Your task to perform on an android device: change notification settings in the gmail app Image 0: 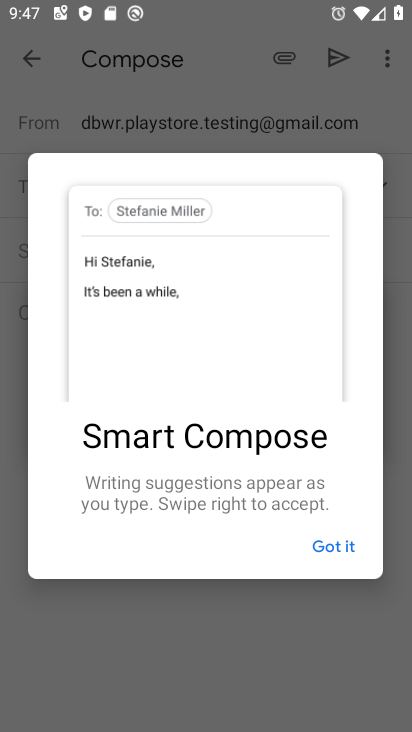
Step 0: click (345, 536)
Your task to perform on an android device: change notification settings in the gmail app Image 1: 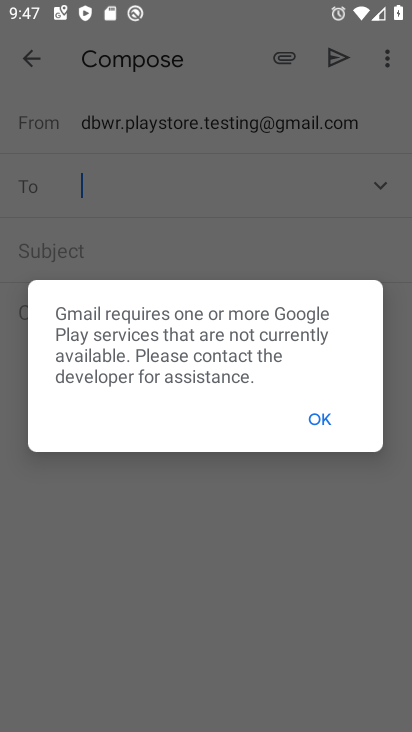
Step 1: click (320, 419)
Your task to perform on an android device: change notification settings in the gmail app Image 2: 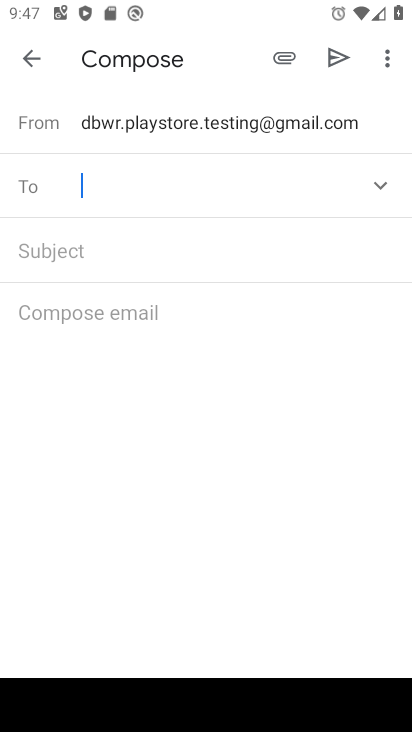
Step 2: drag from (248, 388) to (263, 229)
Your task to perform on an android device: change notification settings in the gmail app Image 3: 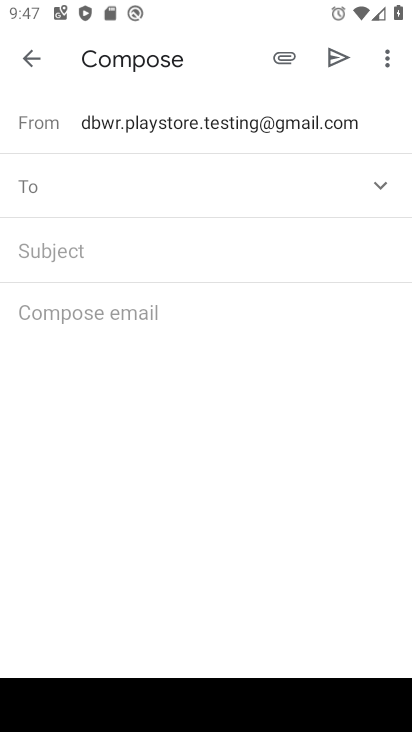
Step 3: press home button
Your task to perform on an android device: change notification settings in the gmail app Image 4: 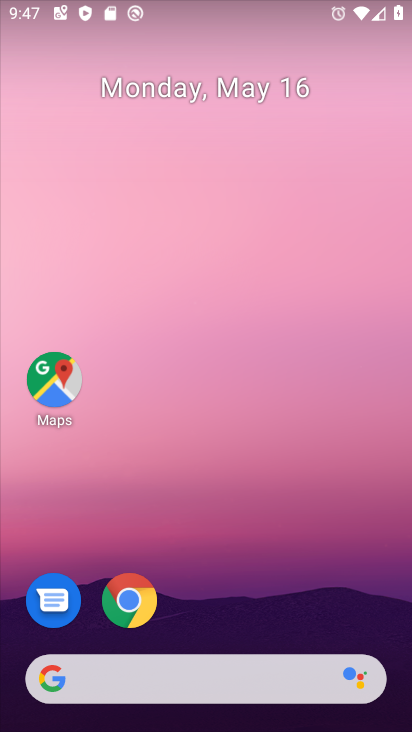
Step 4: drag from (215, 626) to (299, 19)
Your task to perform on an android device: change notification settings in the gmail app Image 5: 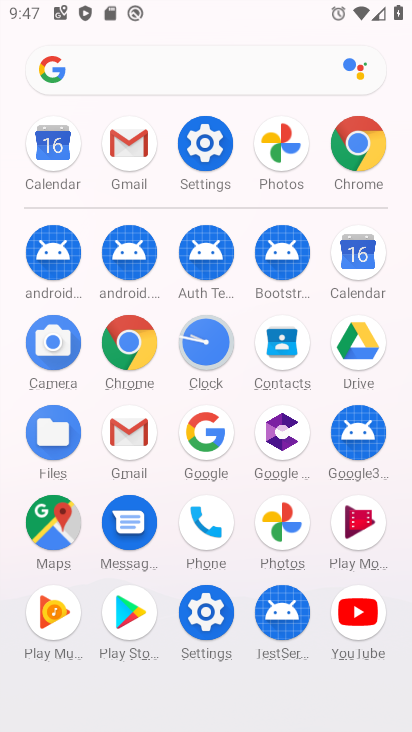
Step 5: click (125, 434)
Your task to perform on an android device: change notification settings in the gmail app Image 6: 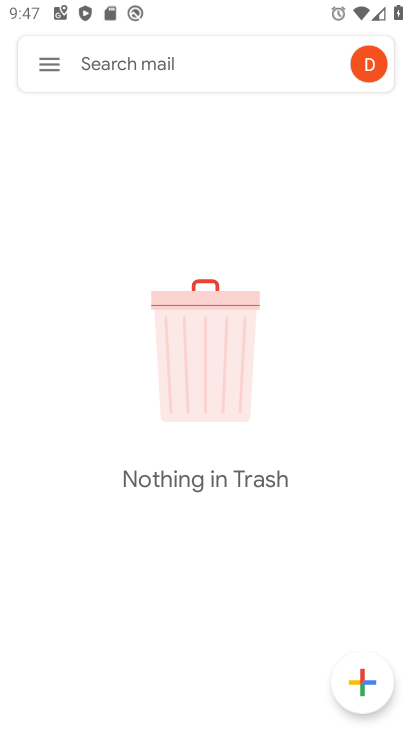
Step 6: click (37, 72)
Your task to perform on an android device: change notification settings in the gmail app Image 7: 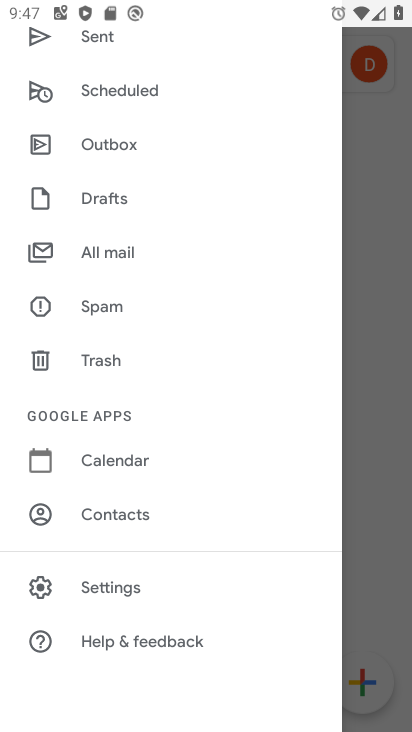
Step 7: drag from (167, 634) to (202, 214)
Your task to perform on an android device: change notification settings in the gmail app Image 8: 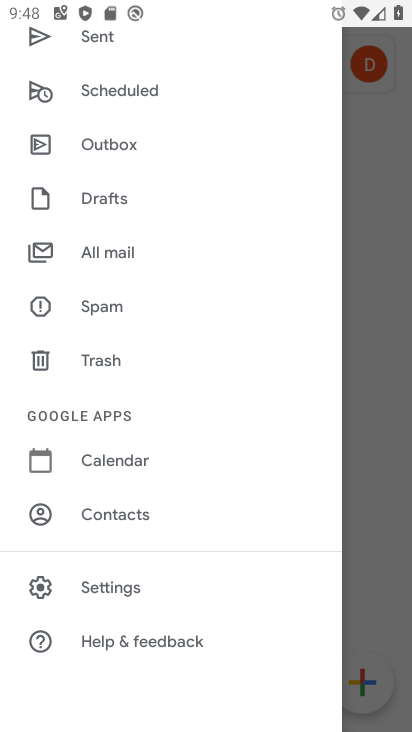
Step 8: click (133, 590)
Your task to perform on an android device: change notification settings in the gmail app Image 9: 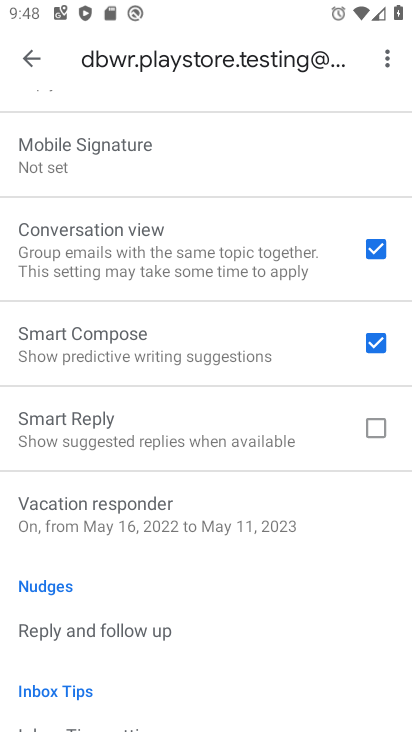
Step 9: drag from (244, 148) to (241, 723)
Your task to perform on an android device: change notification settings in the gmail app Image 10: 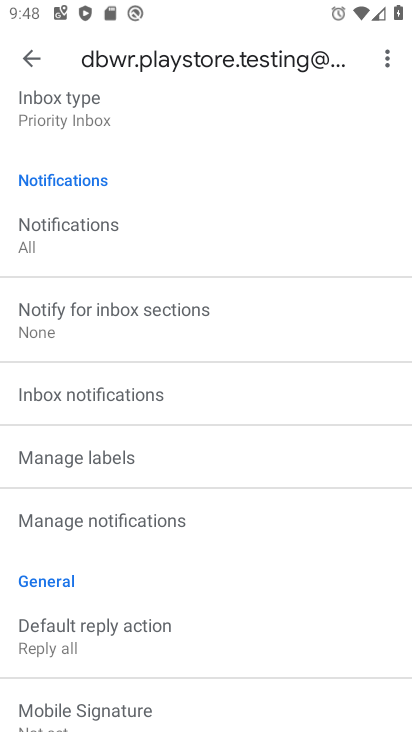
Step 10: click (136, 531)
Your task to perform on an android device: change notification settings in the gmail app Image 11: 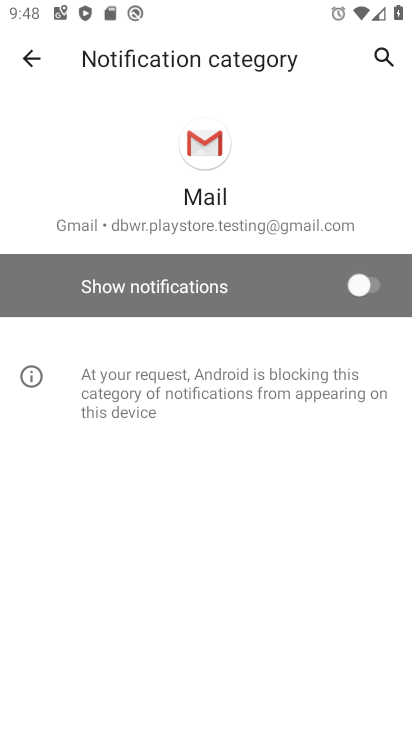
Step 11: click (240, 282)
Your task to perform on an android device: change notification settings in the gmail app Image 12: 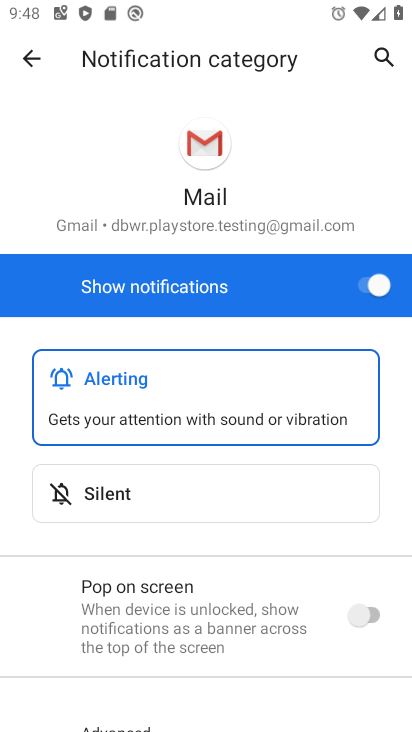
Step 12: task complete